Your task to perform on an android device: turn on translation in the chrome app Image 0: 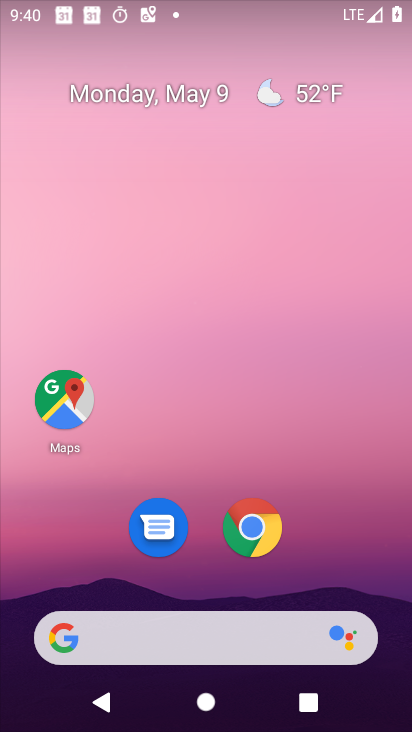
Step 0: drag from (388, 573) to (381, 145)
Your task to perform on an android device: turn on translation in the chrome app Image 1: 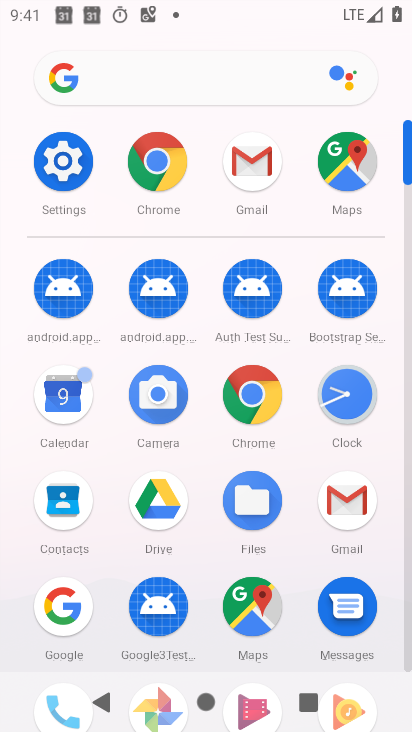
Step 1: click (159, 180)
Your task to perform on an android device: turn on translation in the chrome app Image 2: 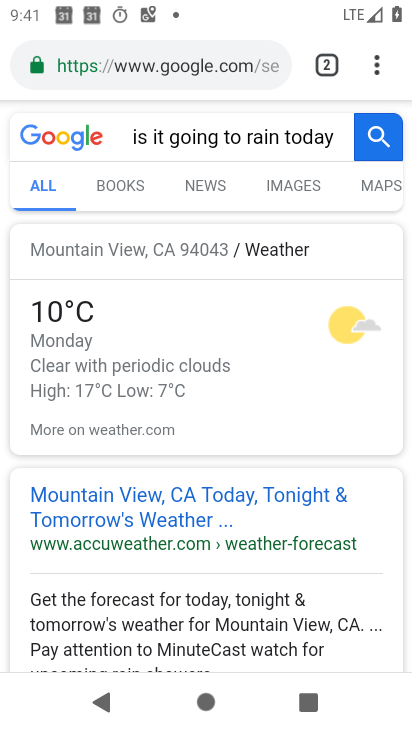
Step 2: drag from (387, 81) to (184, 592)
Your task to perform on an android device: turn on translation in the chrome app Image 3: 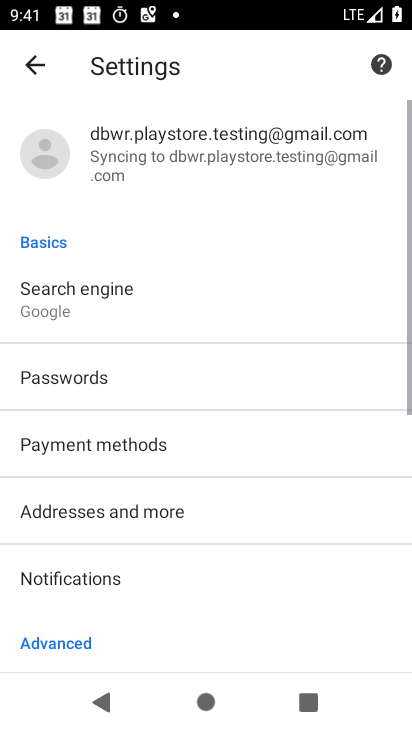
Step 3: drag from (302, 634) to (334, 273)
Your task to perform on an android device: turn on translation in the chrome app Image 4: 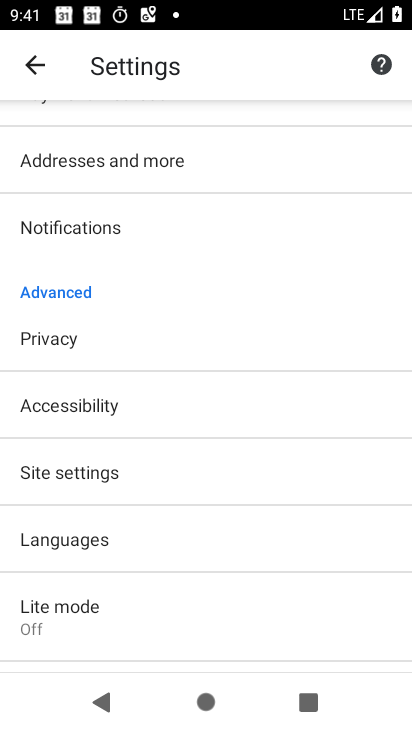
Step 4: drag from (276, 613) to (276, 388)
Your task to perform on an android device: turn on translation in the chrome app Image 5: 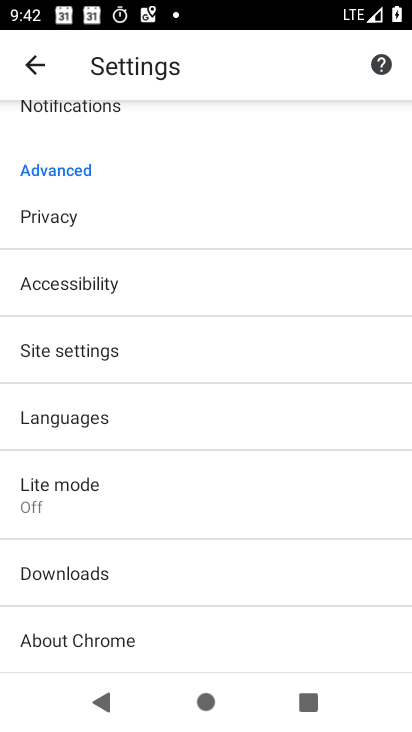
Step 5: click (127, 423)
Your task to perform on an android device: turn on translation in the chrome app Image 6: 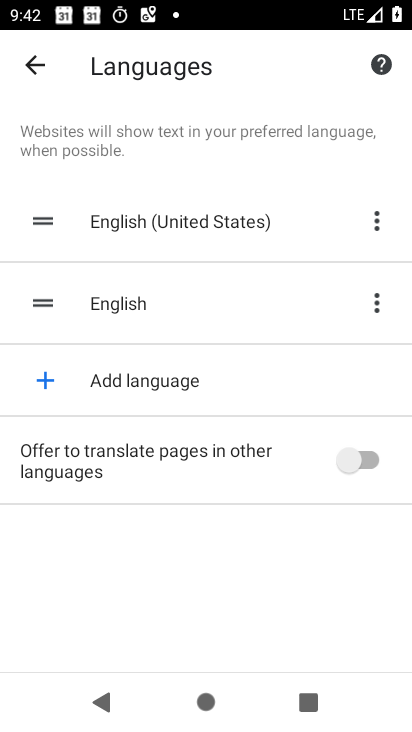
Step 6: click (363, 463)
Your task to perform on an android device: turn on translation in the chrome app Image 7: 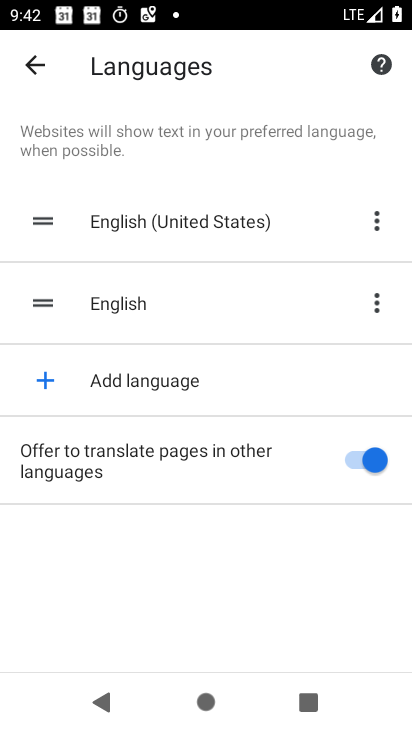
Step 7: task complete